Your task to perform on an android device: Open ESPN.com Image 0: 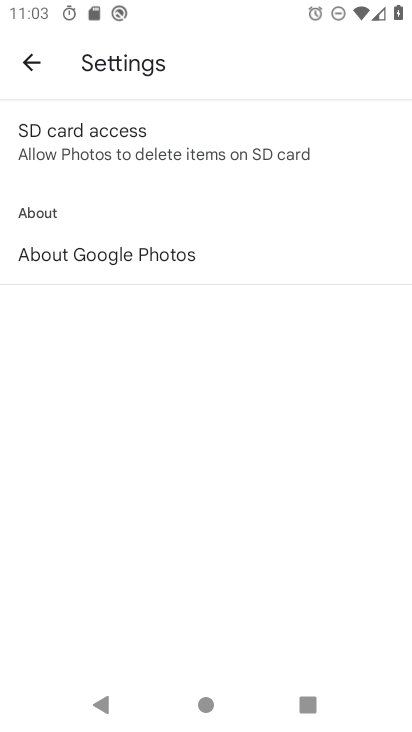
Step 0: press home button
Your task to perform on an android device: Open ESPN.com Image 1: 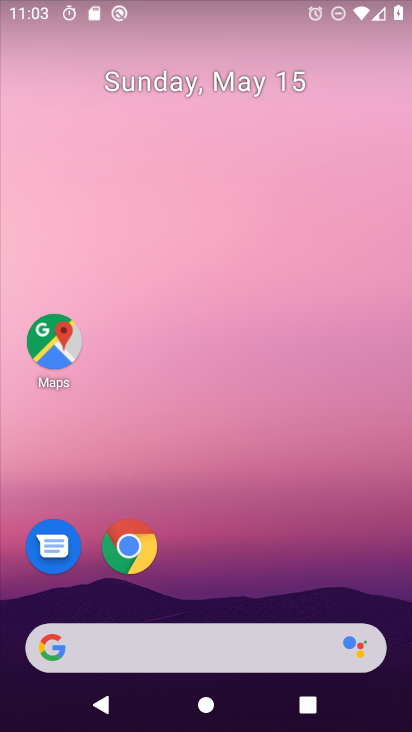
Step 1: click (136, 548)
Your task to perform on an android device: Open ESPN.com Image 2: 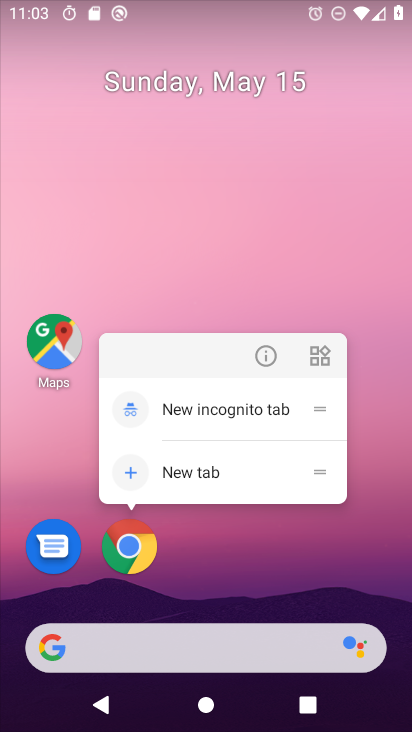
Step 2: click (127, 548)
Your task to perform on an android device: Open ESPN.com Image 3: 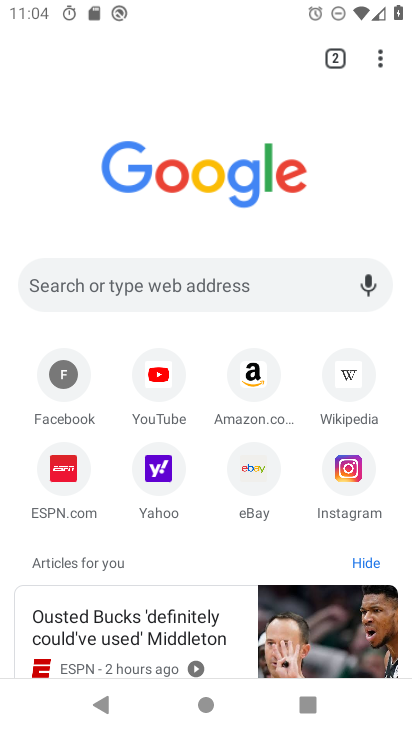
Step 3: click (69, 487)
Your task to perform on an android device: Open ESPN.com Image 4: 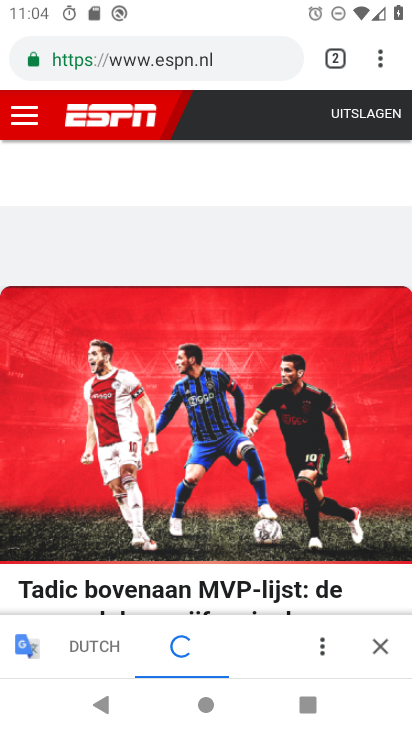
Step 4: task complete